Your task to perform on an android device: Clear all items from cart on bestbuy. Add macbook pro to the cart on bestbuy, then select checkout. Image 0: 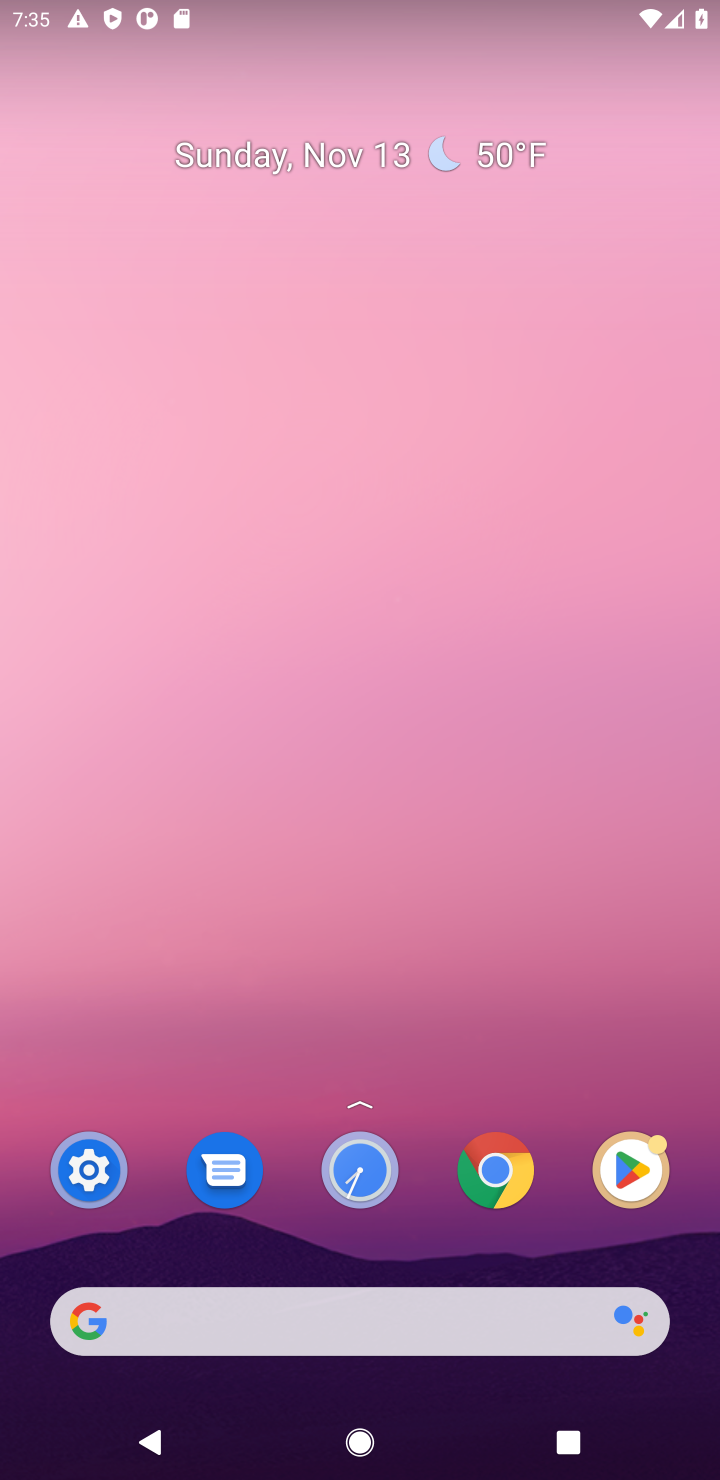
Step 0: click (199, 1321)
Your task to perform on an android device: Clear all items from cart on bestbuy. Add macbook pro to the cart on bestbuy, then select checkout. Image 1: 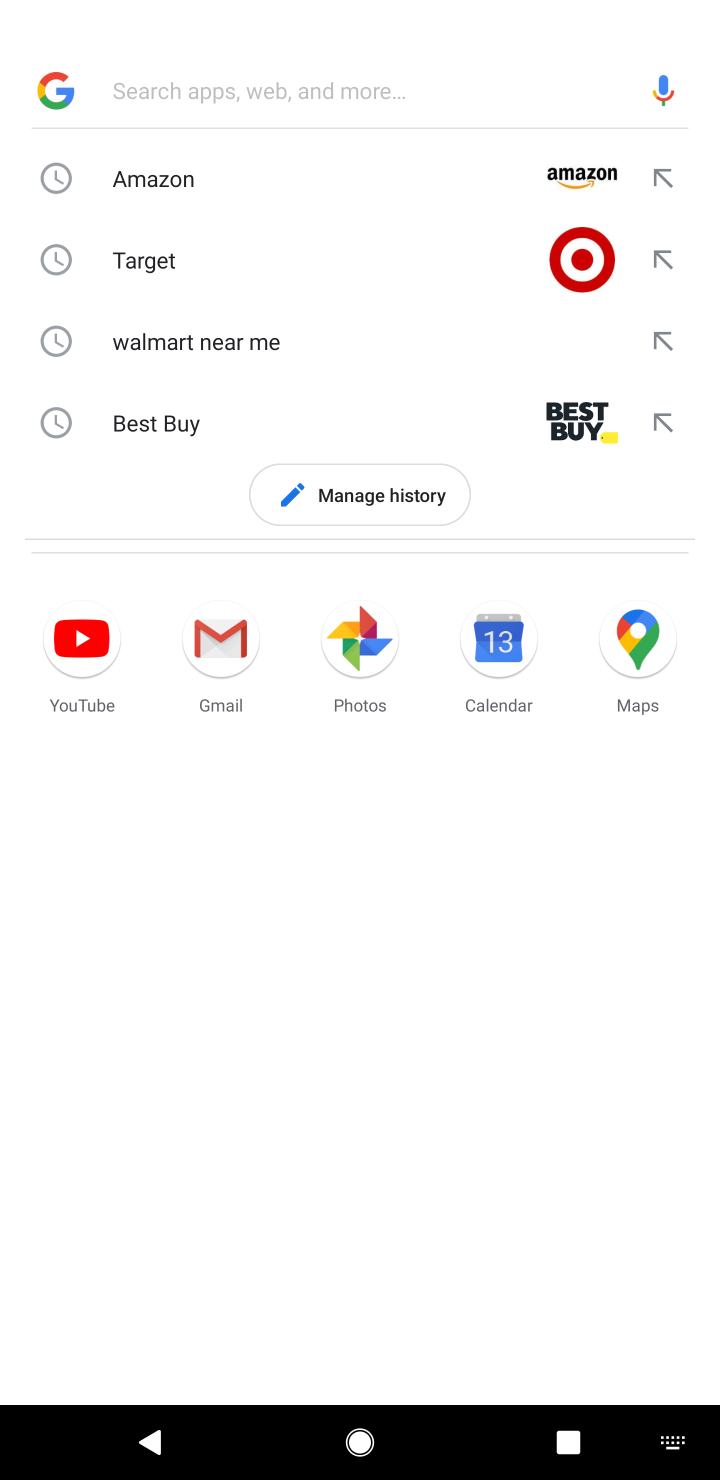
Step 1: type "bestbuy"
Your task to perform on an android device: Clear all items from cart on bestbuy. Add macbook pro to the cart on bestbuy, then select checkout. Image 2: 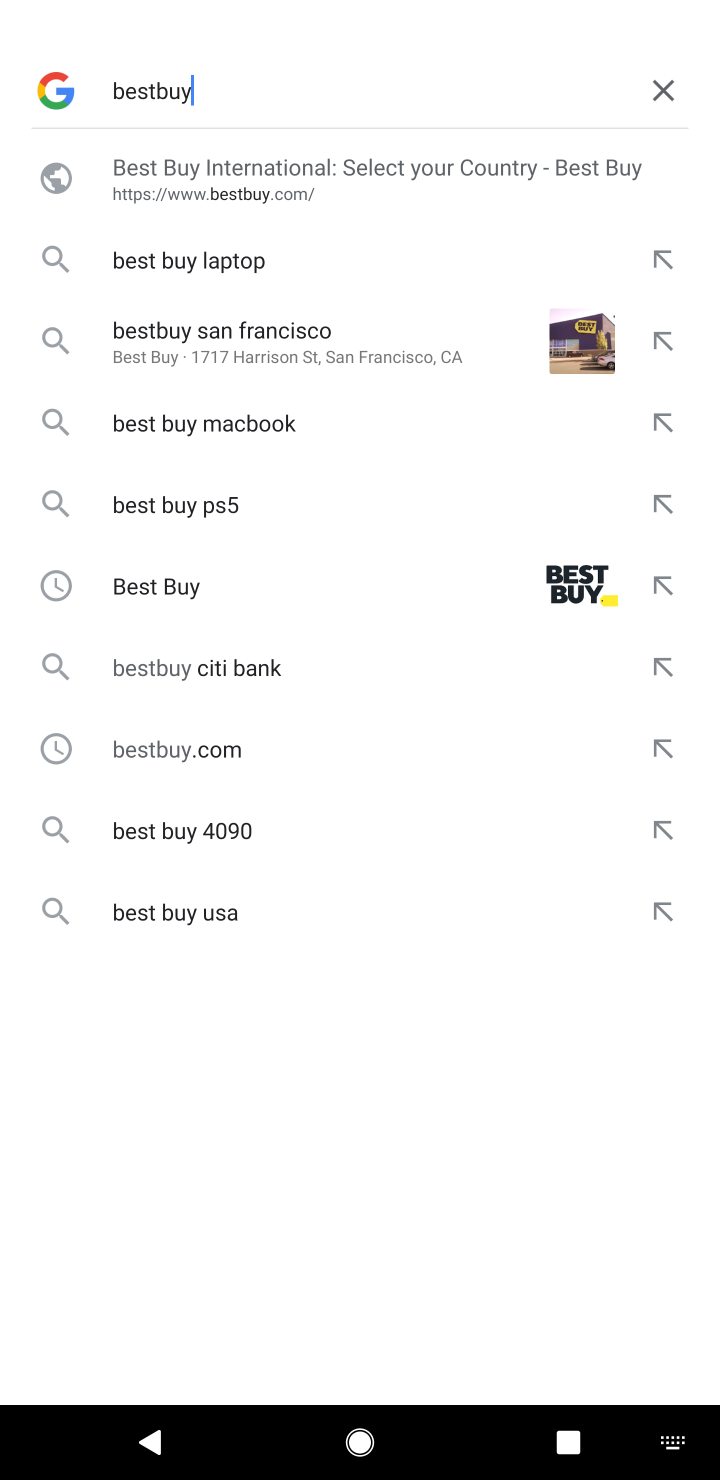
Step 2: click (171, 202)
Your task to perform on an android device: Clear all items from cart on bestbuy. Add macbook pro to the cart on bestbuy, then select checkout. Image 3: 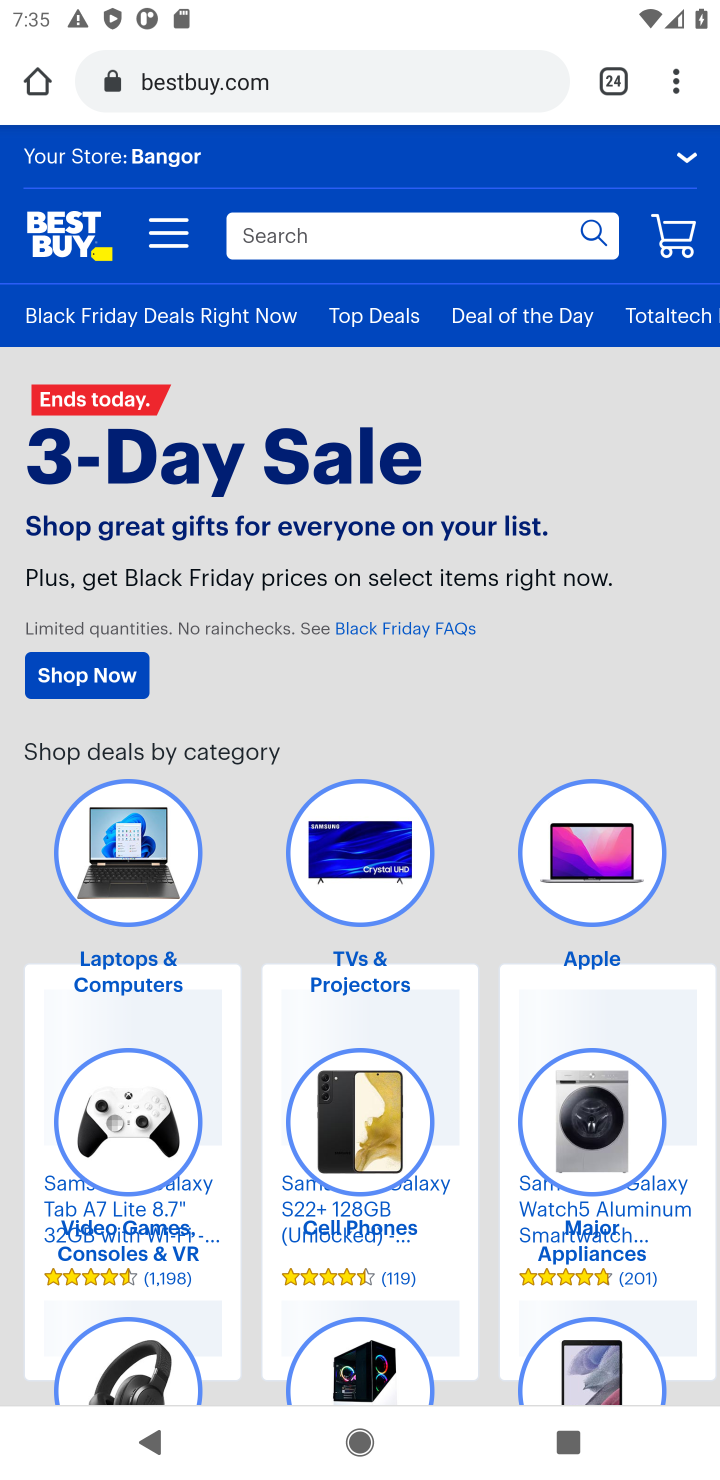
Step 3: click (341, 256)
Your task to perform on an android device: Clear all items from cart on bestbuy. Add macbook pro to the cart on bestbuy, then select checkout. Image 4: 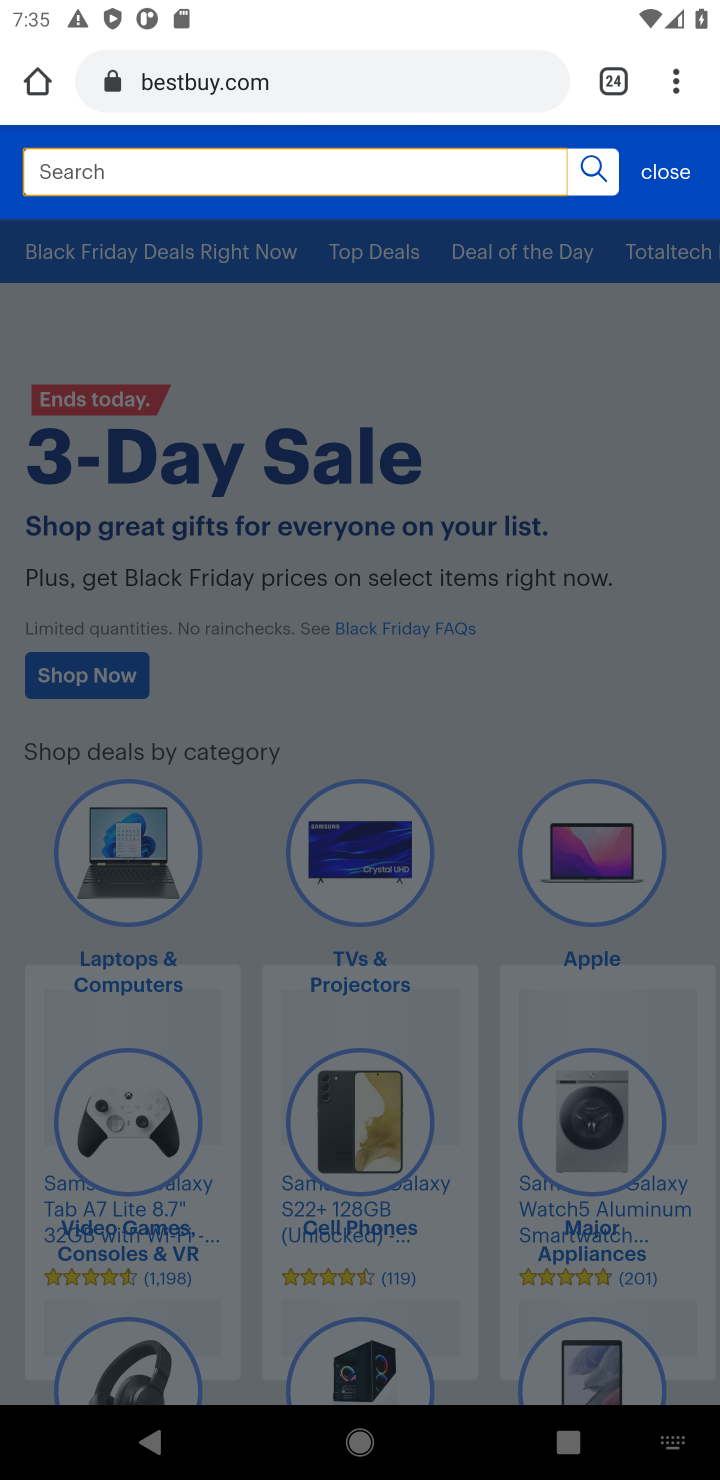
Step 4: type "macbook.com"
Your task to perform on an android device: Clear all items from cart on bestbuy. Add macbook pro to the cart on bestbuy, then select checkout. Image 5: 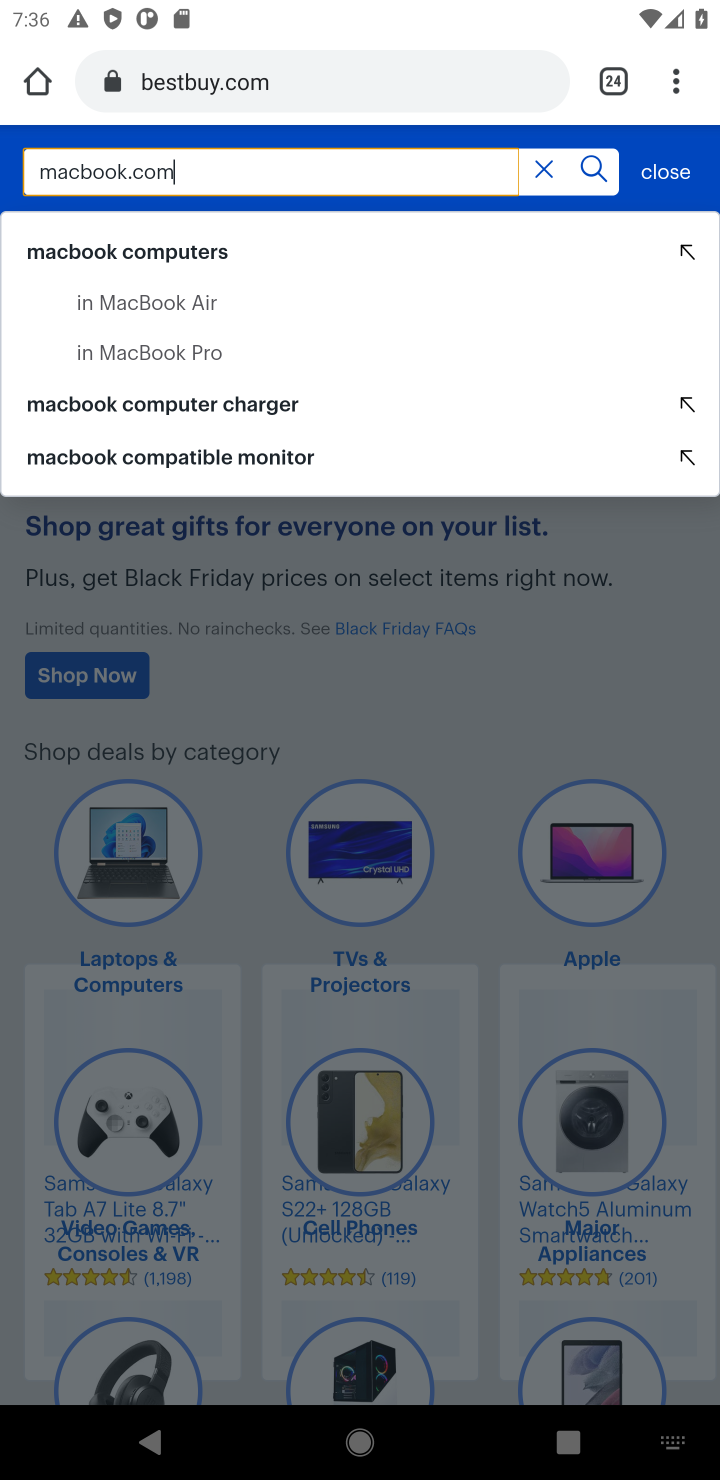
Step 5: click (184, 264)
Your task to perform on an android device: Clear all items from cart on bestbuy. Add macbook pro to the cart on bestbuy, then select checkout. Image 6: 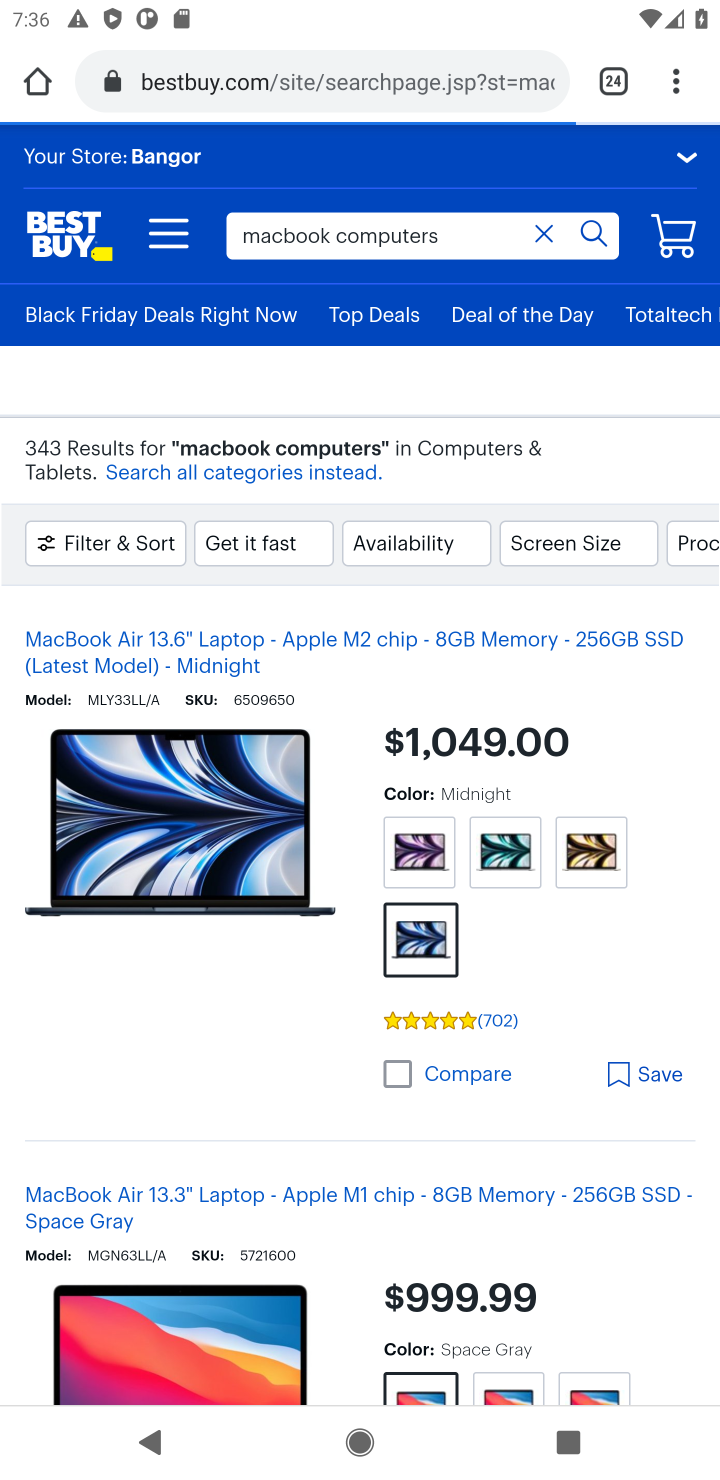
Step 6: task complete